Your task to perform on an android device: Turn on the flashlight Image 0: 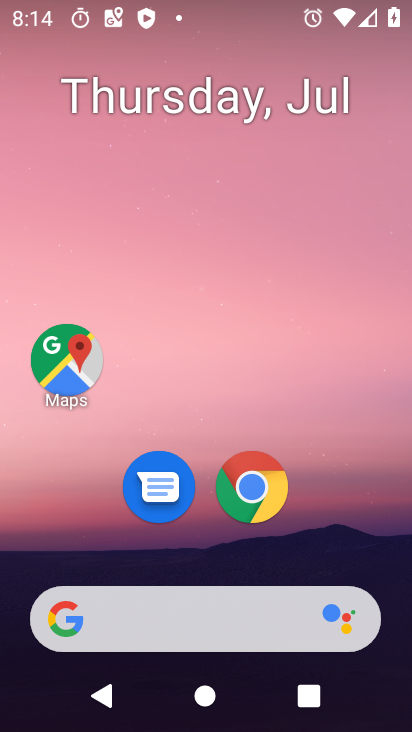
Step 0: drag from (242, 590) to (251, 134)
Your task to perform on an android device: Turn on the flashlight Image 1: 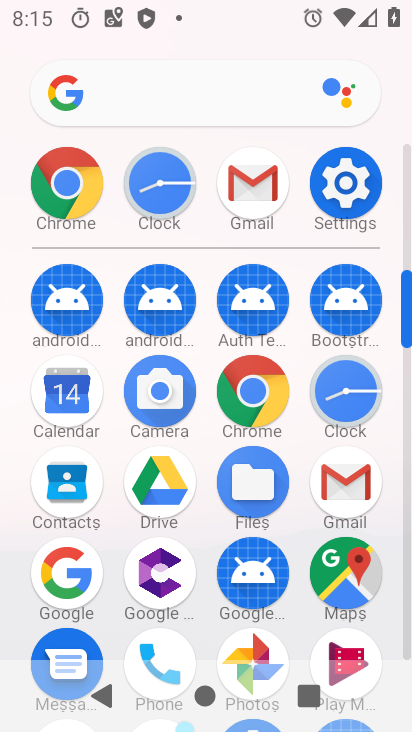
Step 1: task complete